Your task to perform on an android device: delete browsing data in the chrome app Image 0: 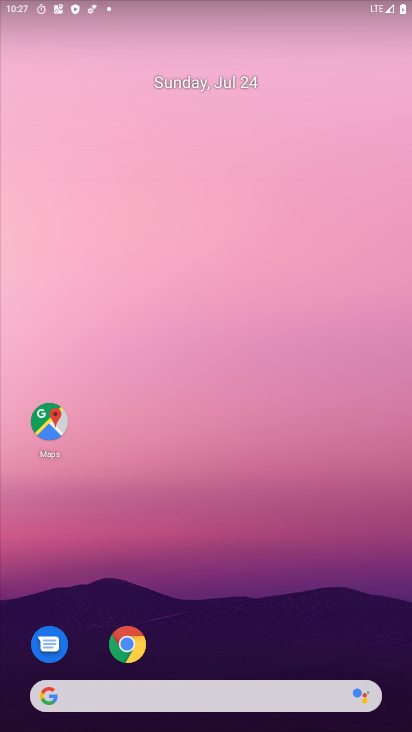
Step 0: click (137, 648)
Your task to perform on an android device: delete browsing data in the chrome app Image 1: 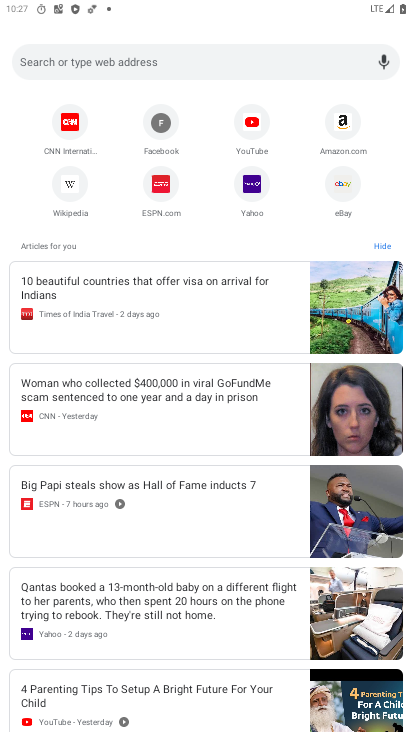
Step 1: drag from (357, 88) to (365, 467)
Your task to perform on an android device: delete browsing data in the chrome app Image 2: 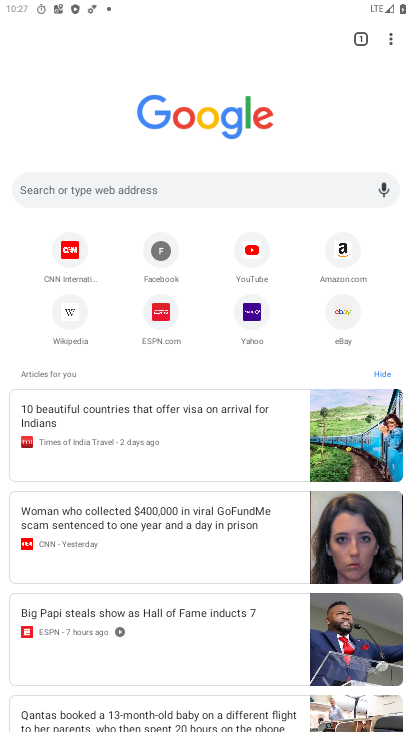
Step 2: click (387, 42)
Your task to perform on an android device: delete browsing data in the chrome app Image 3: 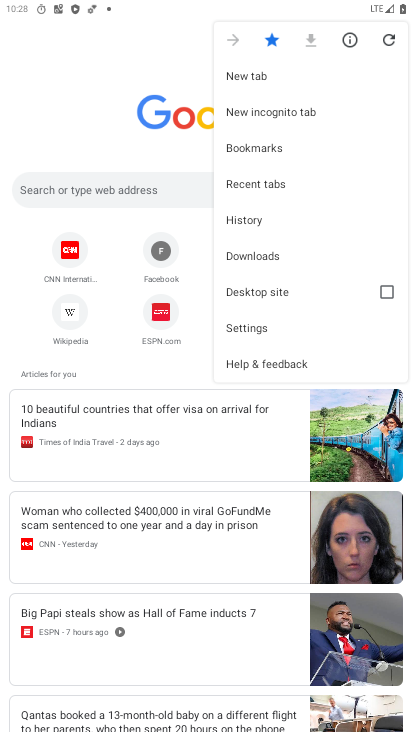
Step 3: click (236, 219)
Your task to perform on an android device: delete browsing data in the chrome app Image 4: 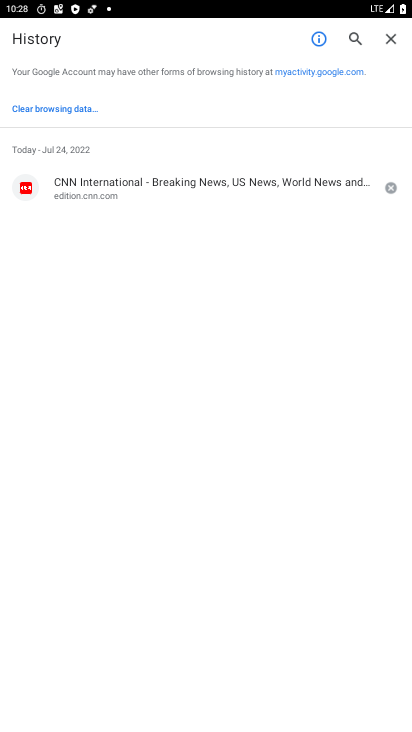
Step 4: click (37, 109)
Your task to perform on an android device: delete browsing data in the chrome app Image 5: 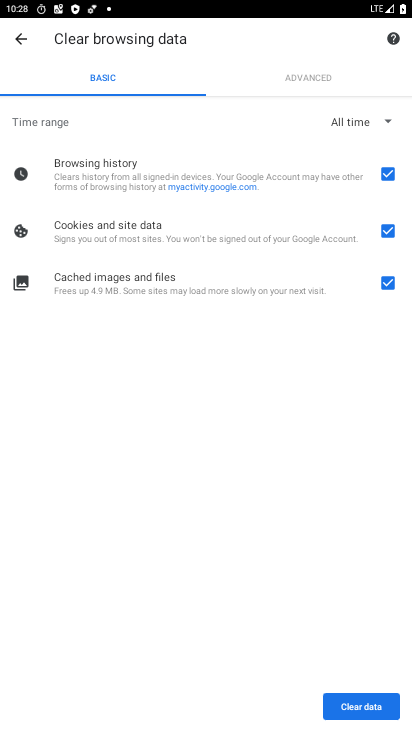
Step 5: click (359, 702)
Your task to perform on an android device: delete browsing data in the chrome app Image 6: 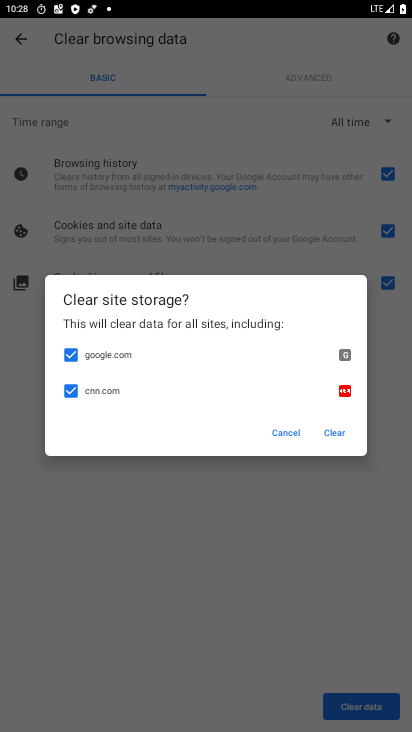
Step 6: click (332, 435)
Your task to perform on an android device: delete browsing data in the chrome app Image 7: 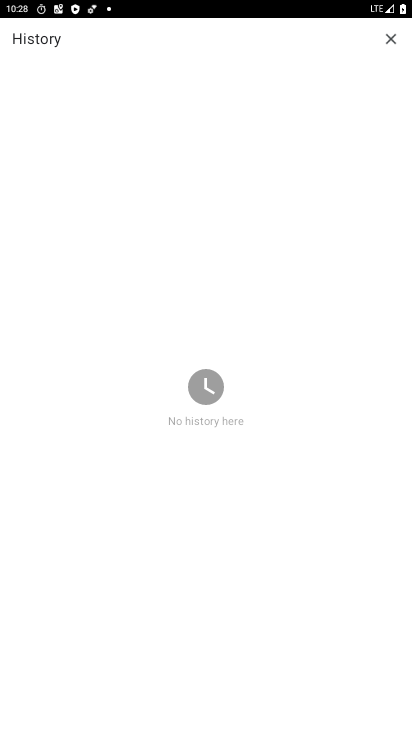
Step 7: task complete